Your task to perform on an android device: Add "razer thresher" to the cart on ebay.com Image 0: 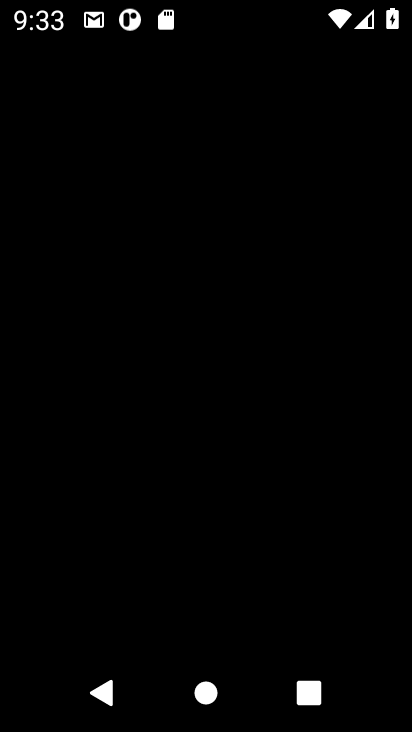
Step 0: press home button
Your task to perform on an android device: Add "razer thresher" to the cart on ebay.com Image 1: 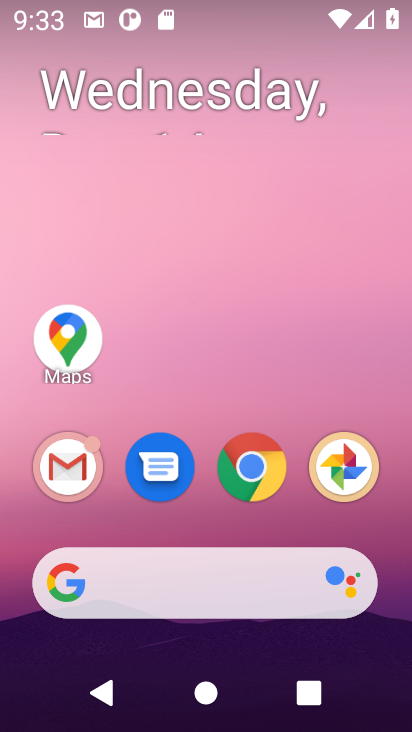
Step 1: click (256, 556)
Your task to perform on an android device: Add "razer thresher" to the cart on ebay.com Image 2: 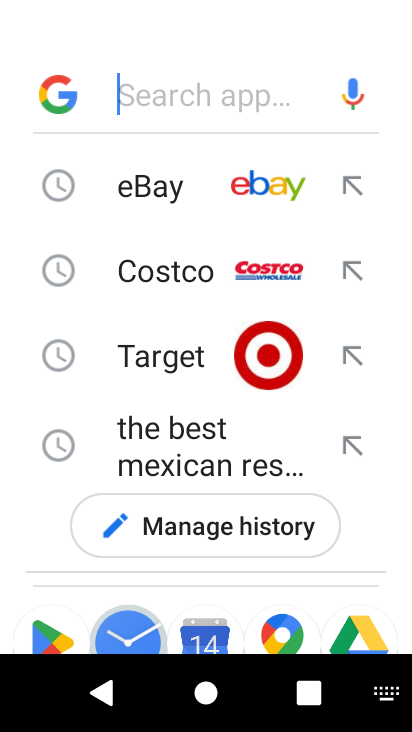
Step 2: click (217, 199)
Your task to perform on an android device: Add "razer thresher" to the cart on ebay.com Image 3: 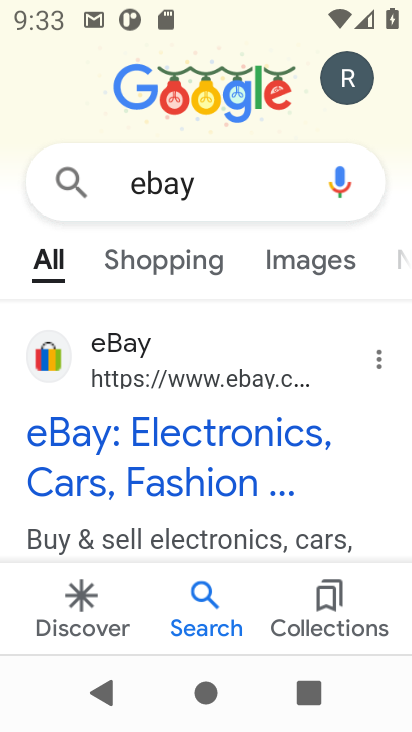
Step 3: click (217, 441)
Your task to perform on an android device: Add "razer thresher" to the cart on ebay.com Image 4: 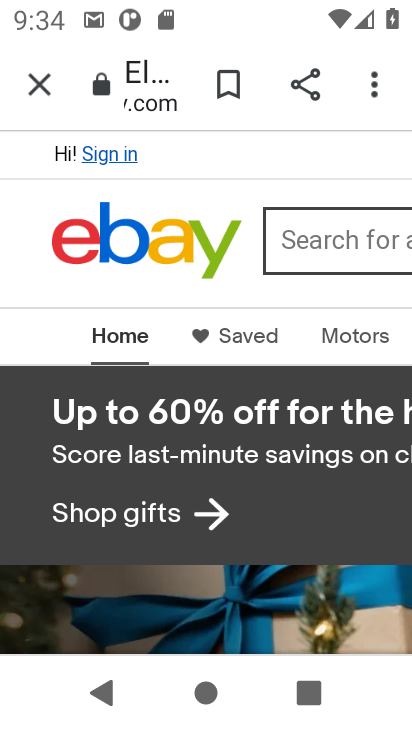
Step 4: task complete